Your task to perform on an android device: Open calendar and show me the second week of next month Image 0: 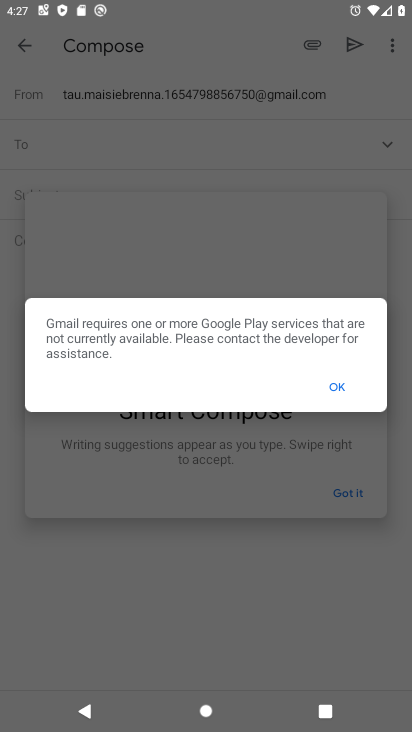
Step 0: press home button
Your task to perform on an android device: Open calendar and show me the second week of next month Image 1: 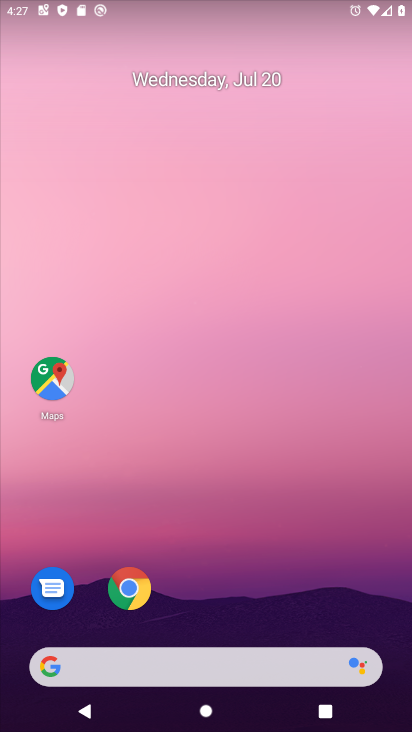
Step 1: drag from (288, 545) to (295, 42)
Your task to perform on an android device: Open calendar and show me the second week of next month Image 2: 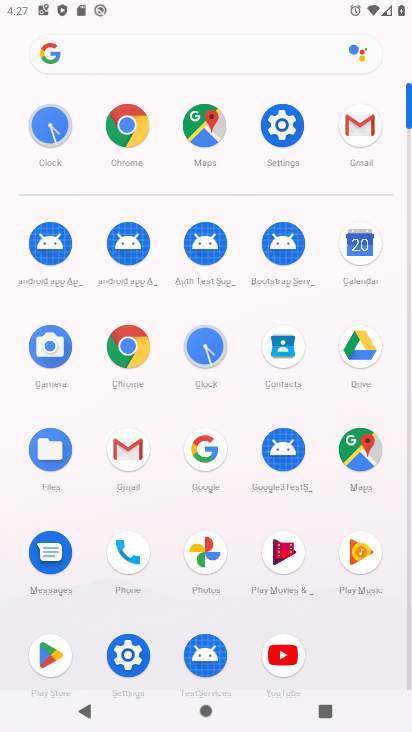
Step 2: click (365, 248)
Your task to perform on an android device: Open calendar and show me the second week of next month Image 3: 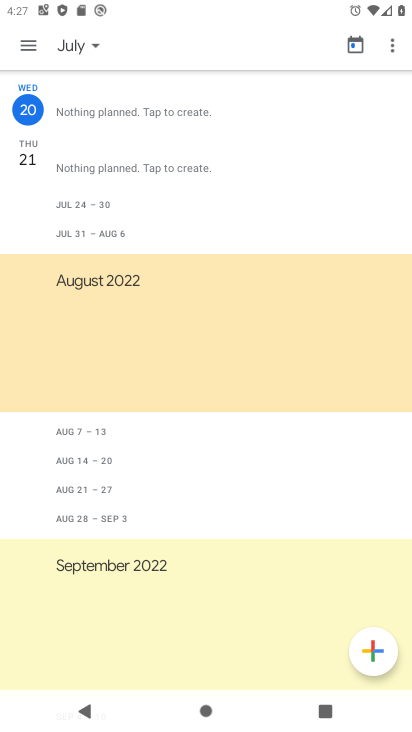
Step 3: click (80, 42)
Your task to perform on an android device: Open calendar and show me the second week of next month Image 4: 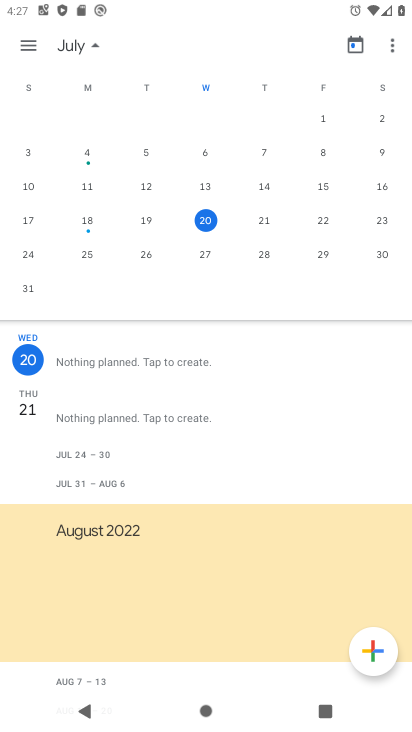
Step 4: drag from (385, 220) to (5, 201)
Your task to perform on an android device: Open calendar and show me the second week of next month Image 5: 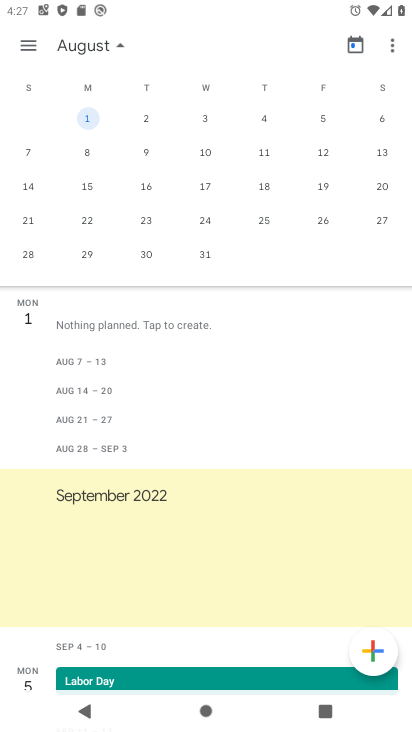
Step 5: click (147, 146)
Your task to perform on an android device: Open calendar and show me the second week of next month Image 6: 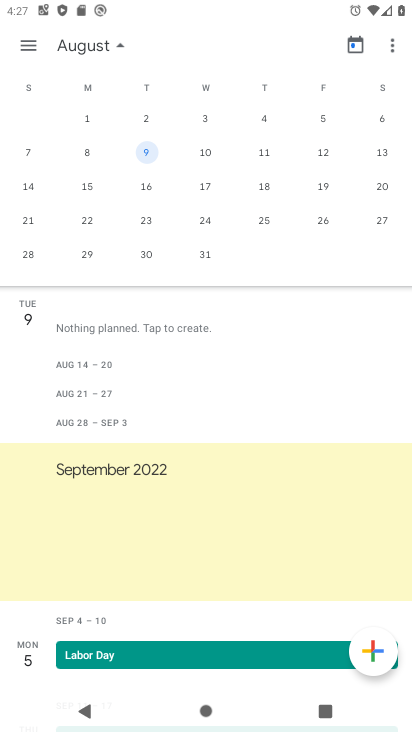
Step 6: click (22, 41)
Your task to perform on an android device: Open calendar and show me the second week of next month Image 7: 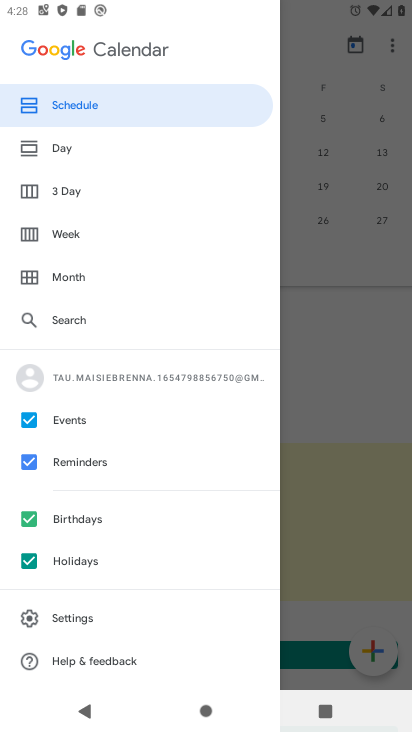
Step 7: click (74, 236)
Your task to perform on an android device: Open calendar and show me the second week of next month Image 8: 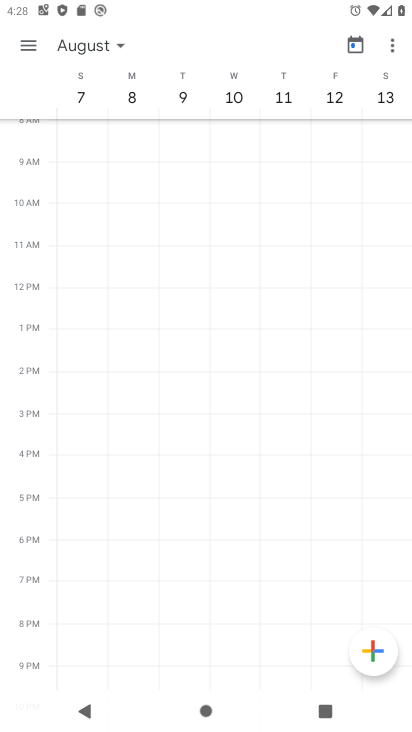
Step 8: task complete